Your task to perform on an android device: Open the calendar and show me this week's events? Image 0: 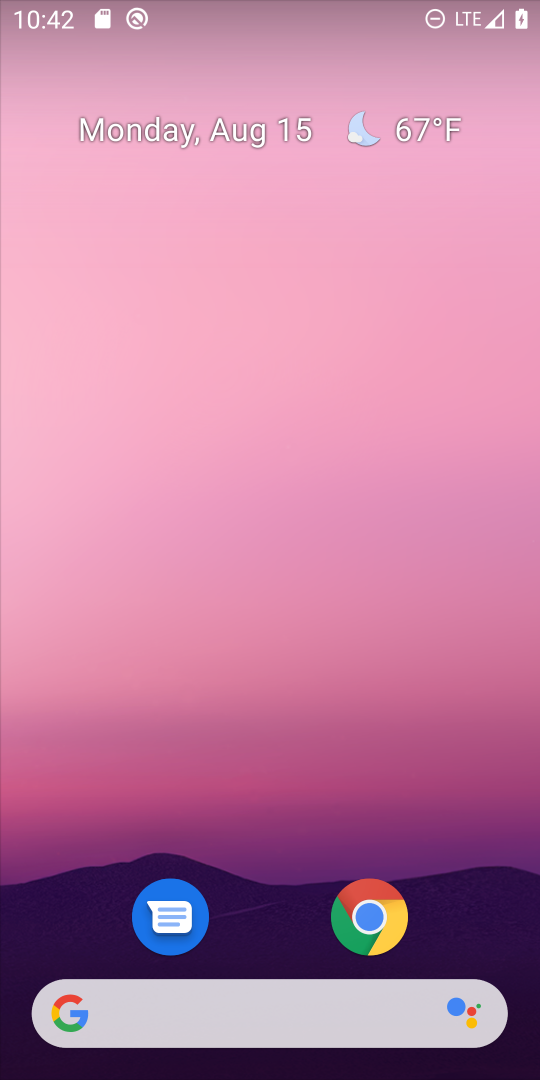
Step 0: drag from (302, 795) to (436, 97)
Your task to perform on an android device: Open the calendar and show me this week's events? Image 1: 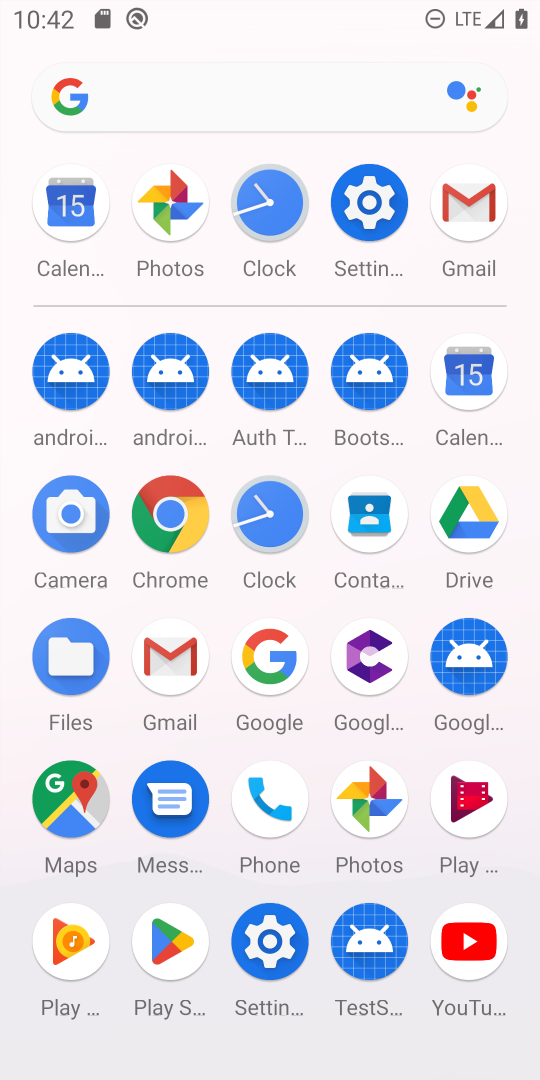
Step 1: click (64, 209)
Your task to perform on an android device: Open the calendar and show me this week's events? Image 2: 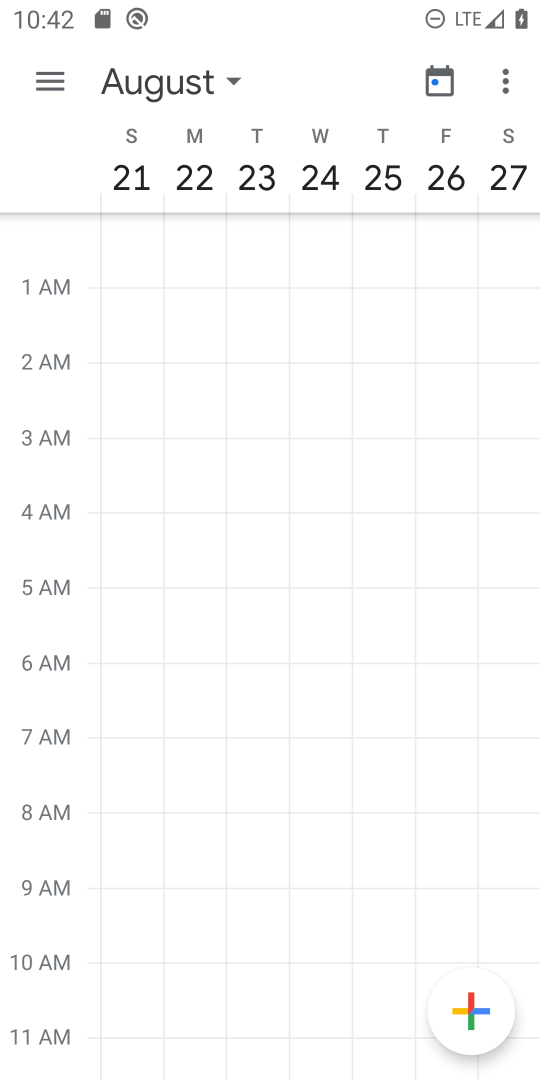
Step 2: task complete